Your task to perform on an android device: Play the new Ariana Grande video on YouTube Image 0: 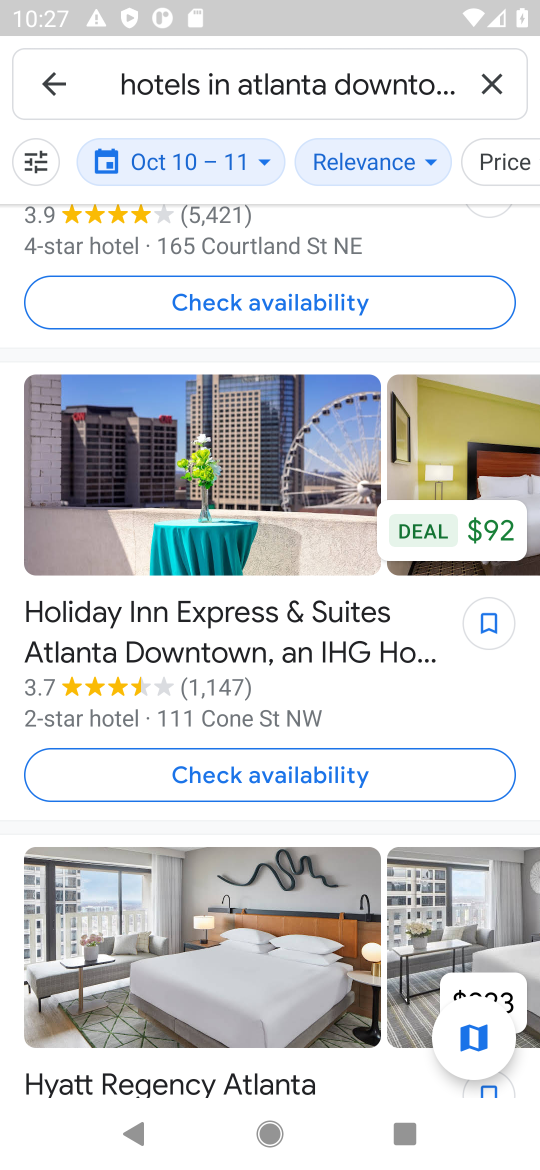
Step 0: press home button
Your task to perform on an android device: Play the new Ariana Grande video on YouTube Image 1: 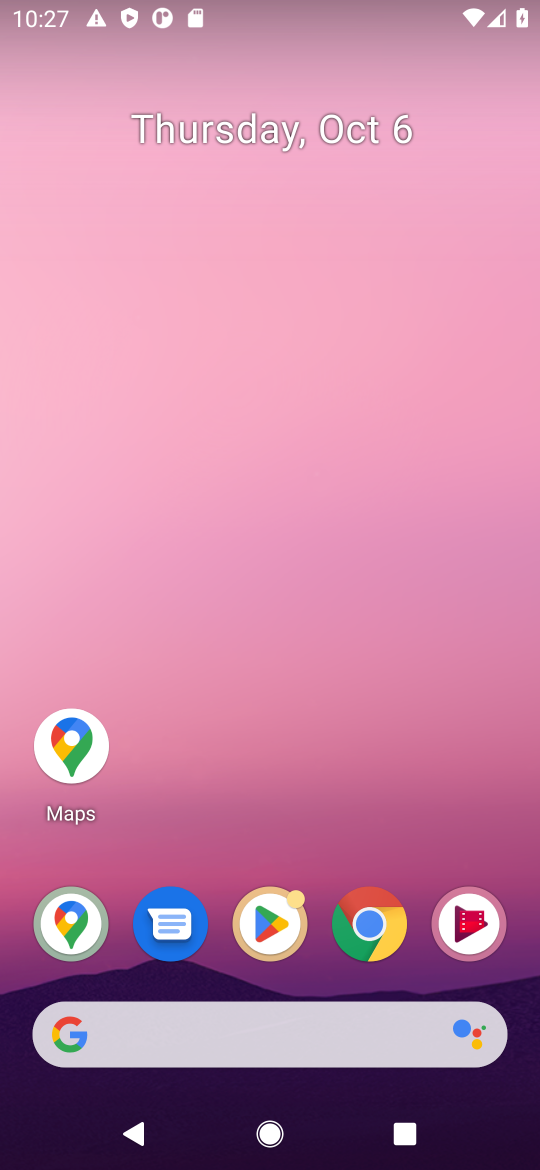
Step 1: drag from (282, 1032) to (479, 136)
Your task to perform on an android device: Play the new Ariana Grande video on YouTube Image 2: 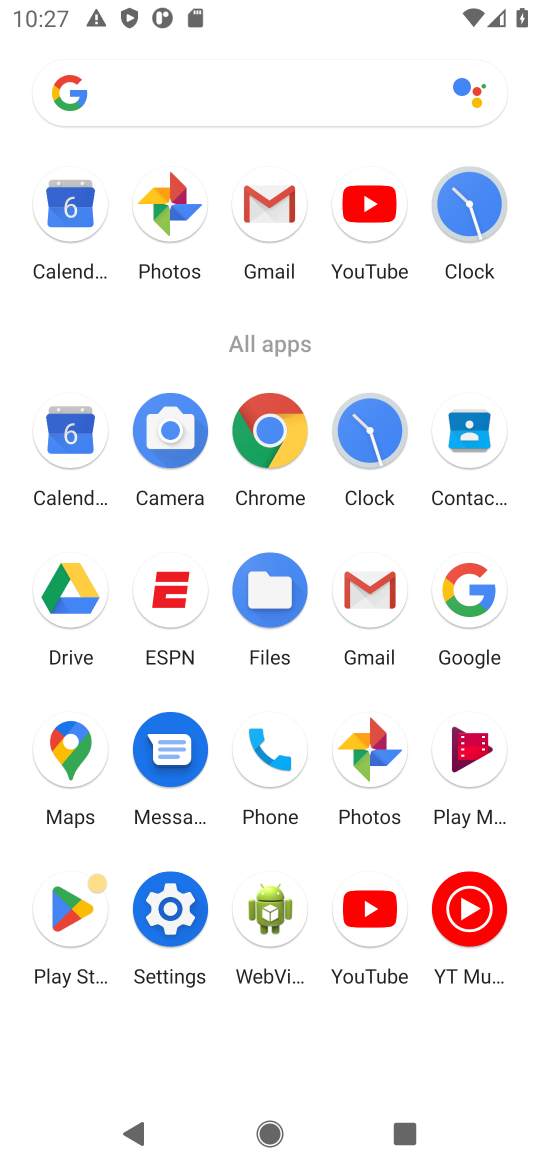
Step 2: click (363, 202)
Your task to perform on an android device: Play the new Ariana Grande video on YouTube Image 3: 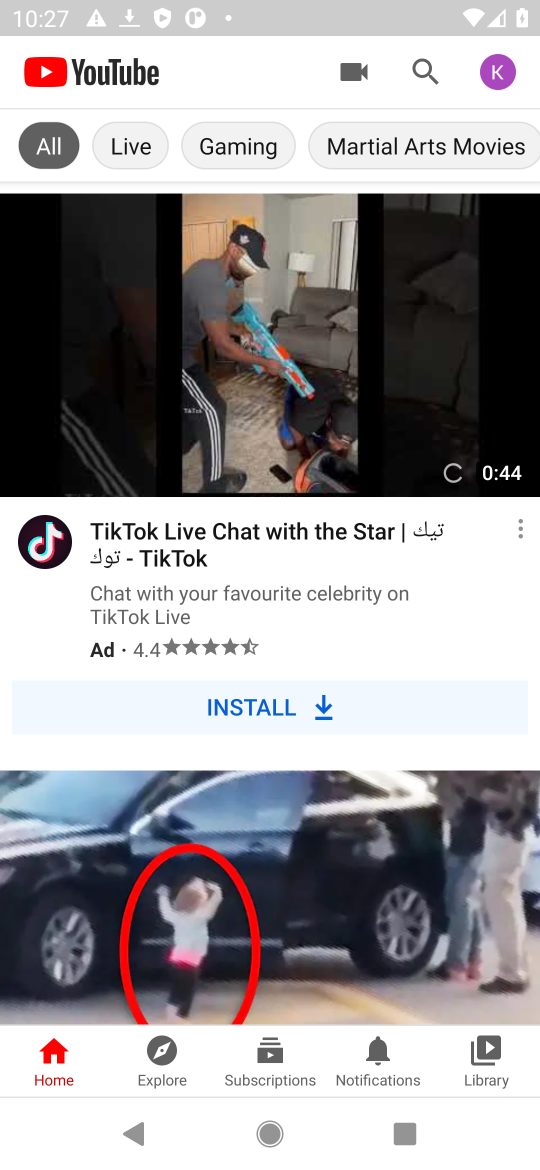
Step 3: click (420, 67)
Your task to perform on an android device: Play the new Ariana Grande video on YouTube Image 4: 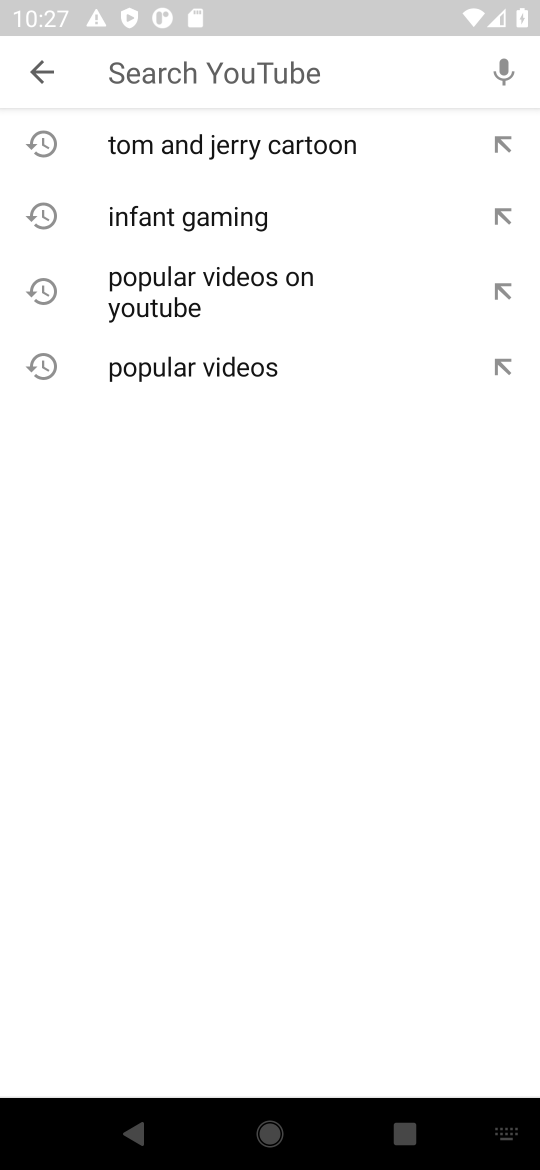
Step 4: type "new Ariana Grande video"
Your task to perform on an android device: Play the new Ariana Grande video on YouTube Image 5: 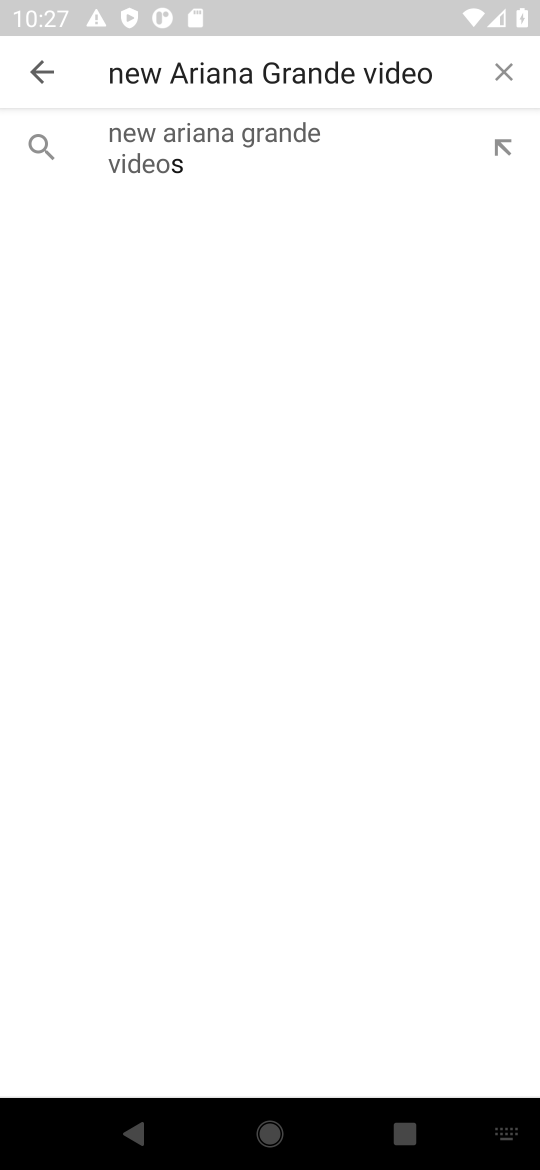
Step 5: click (171, 131)
Your task to perform on an android device: Play the new Ariana Grande video on YouTube Image 6: 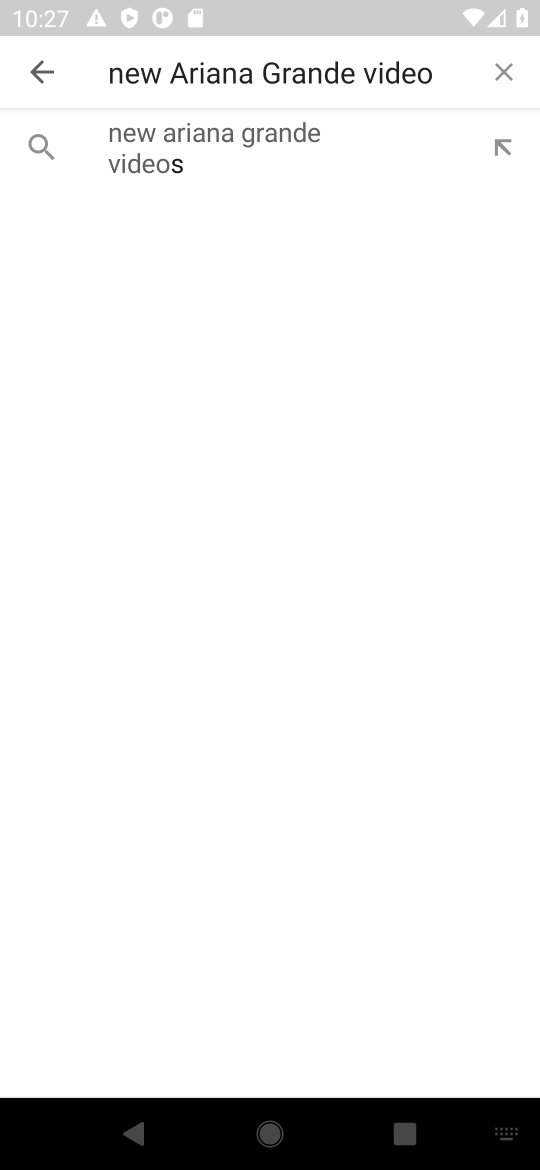
Step 6: click (171, 131)
Your task to perform on an android device: Play the new Ariana Grande video on YouTube Image 7: 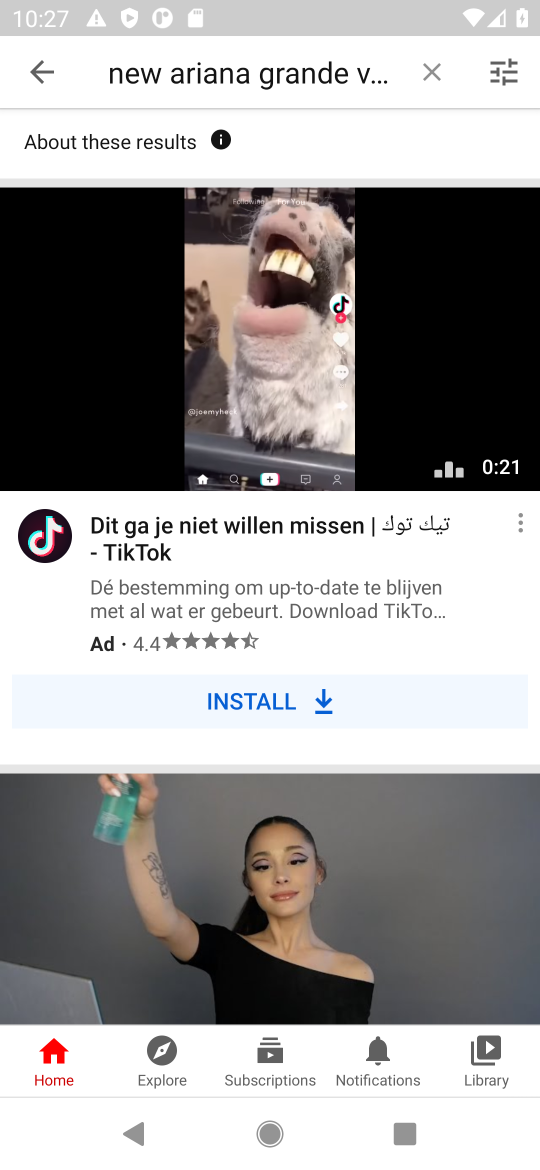
Step 7: drag from (184, 858) to (504, 207)
Your task to perform on an android device: Play the new Ariana Grande video on YouTube Image 8: 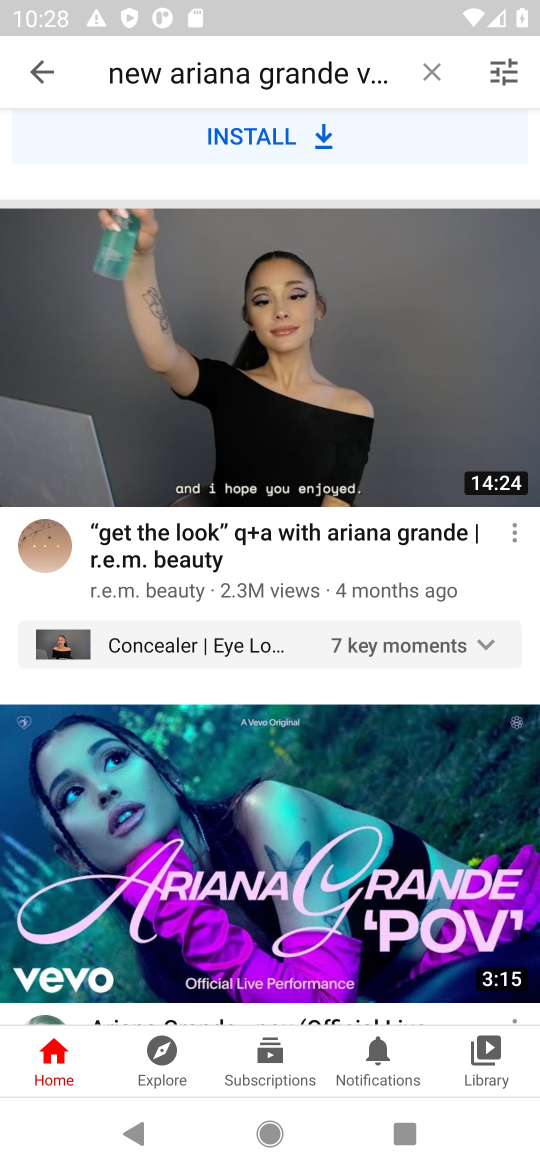
Step 8: drag from (347, 818) to (410, 690)
Your task to perform on an android device: Play the new Ariana Grande video on YouTube Image 9: 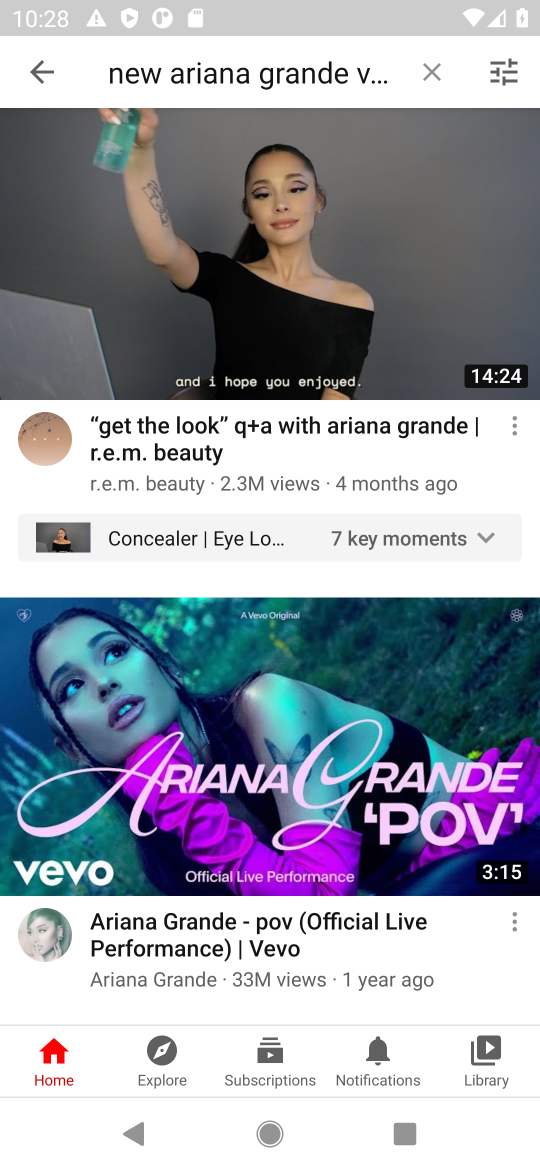
Step 9: click (309, 270)
Your task to perform on an android device: Play the new Ariana Grande video on YouTube Image 10: 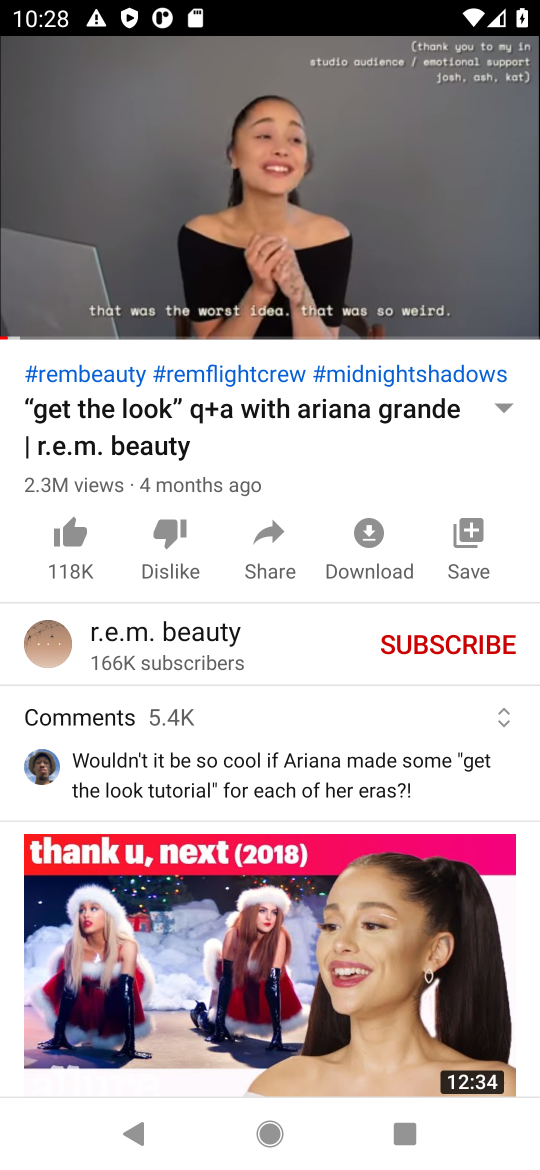
Step 10: click (253, 162)
Your task to perform on an android device: Play the new Ariana Grande video on YouTube Image 11: 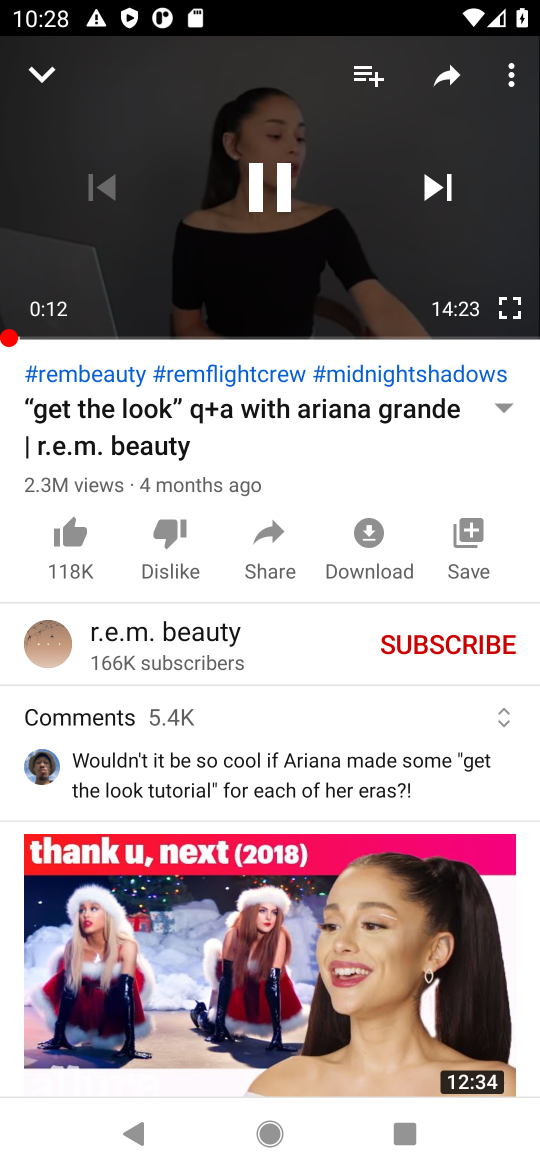
Step 11: click (267, 178)
Your task to perform on an android device: Play the new Ariana Grande video on YouTube Image 12: 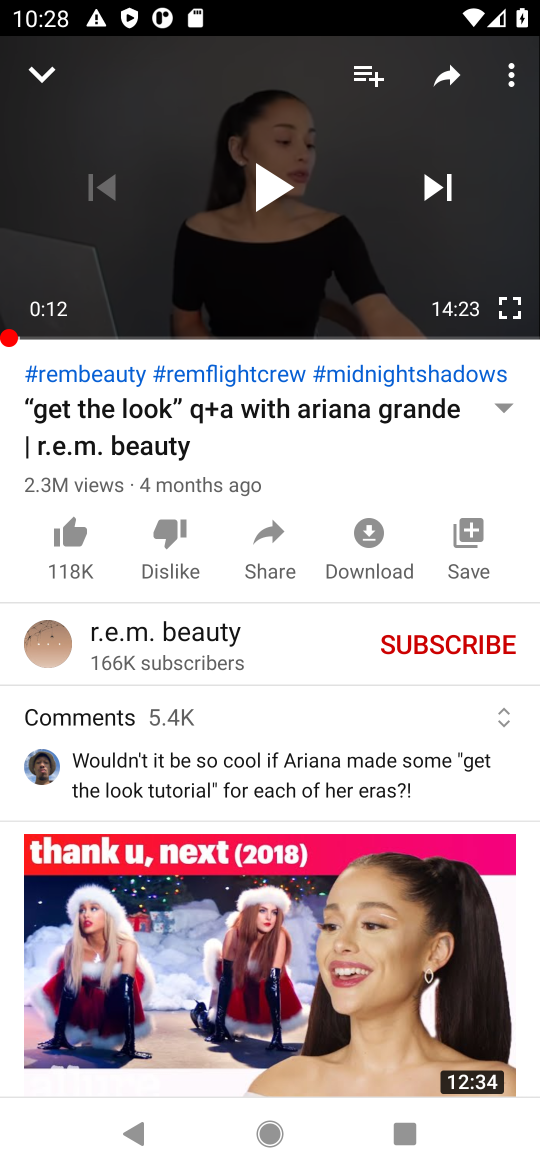
Step 12: task complete